Your task to perform on an android device: open sync settings in chrome Image 0: 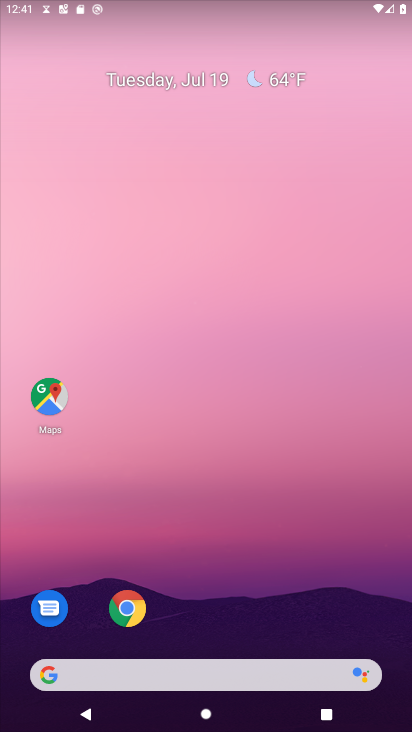
Step 0: drag from (243, 605) to (211, 123)
Your task to perform on an android device: open sync settings in chrome Image 1: 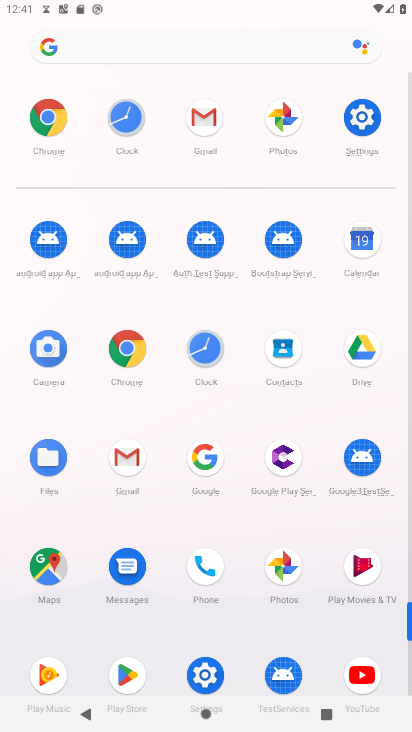
Step 1: click (130, 360)
Your task to perform on an android device: open sync settings in chrome Image 2: 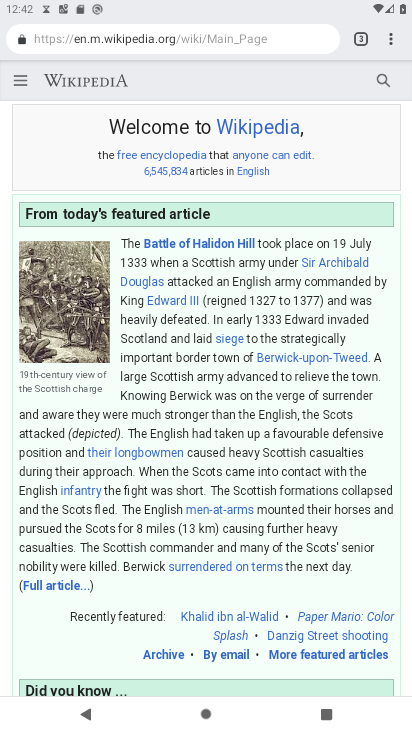
Step 2: click (394, 46)
Your task to perform on an android device: open sync settings in chrome Image 3: 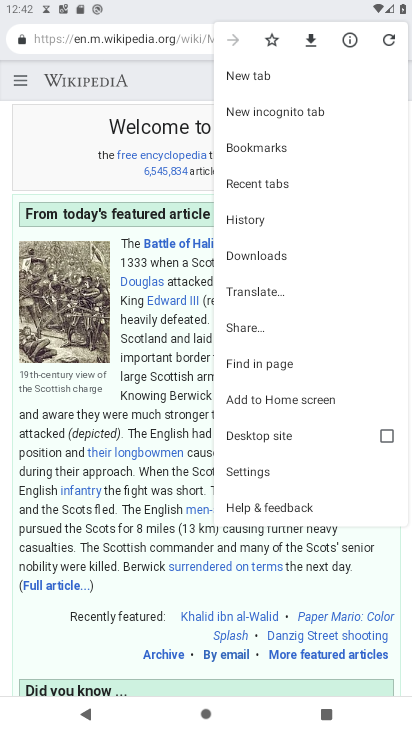
Step 3: click (270, 468)
Your task to perform on an android device: open sync settings in chrome Image 4: 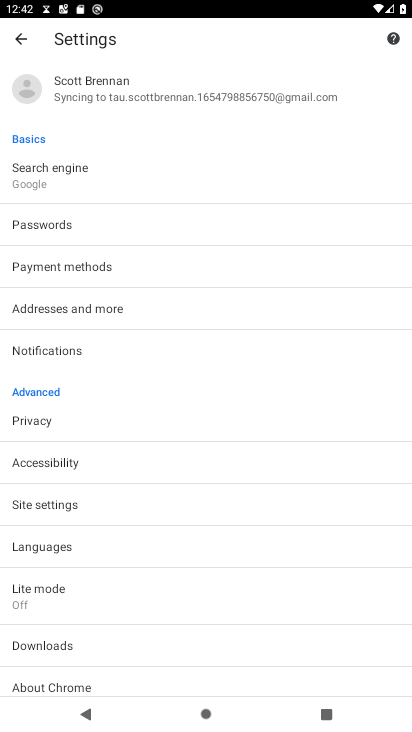
Step 4: click (168, 90)
Your task to perform on an android device: open sync settings in chrome Image 5: 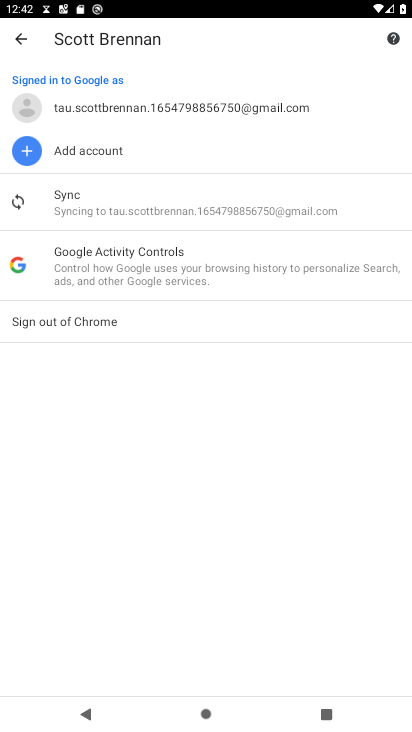
Step 5: click (111, 218)
Your task to perform on an android device: open sync settings in chrome Image 6: 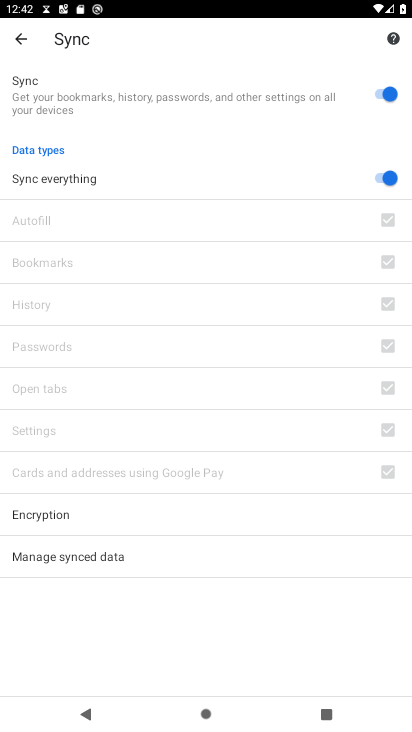
Step 6: task complete